Your task to perform on an android device: set default search engine in the chrome app Image 0: 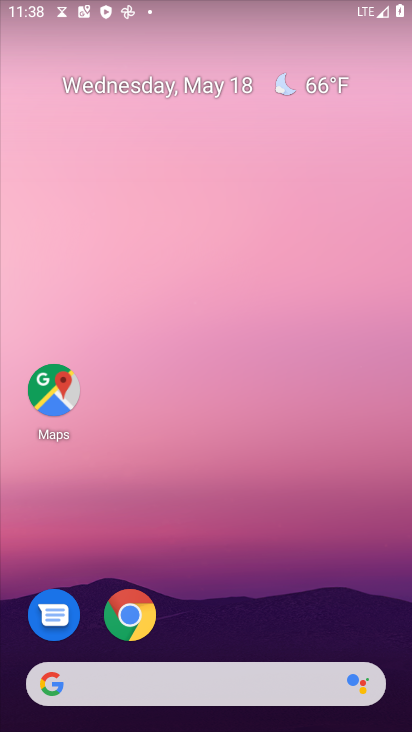
Step 0: drag from (263, 581) to (235, 30)
Your task to perform on an android device: set default search engine in the chrome app Image 1: 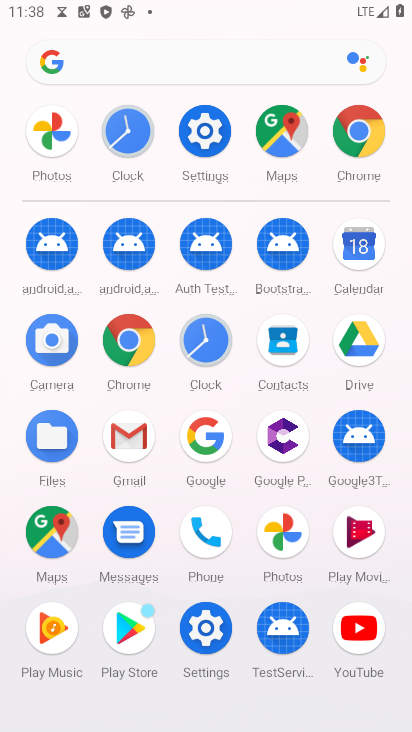
Step 1: drag from (8, 553) to (15, 235)
Your task to perform on an android device: set default search engine in the chrome app Image 2: 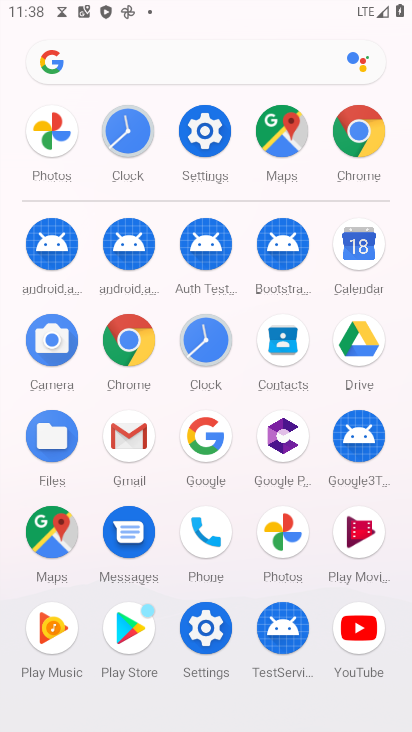
Step 2: click (125, 334)
Your task to perform on an android device: set default search engine in the chrome app Image 3: 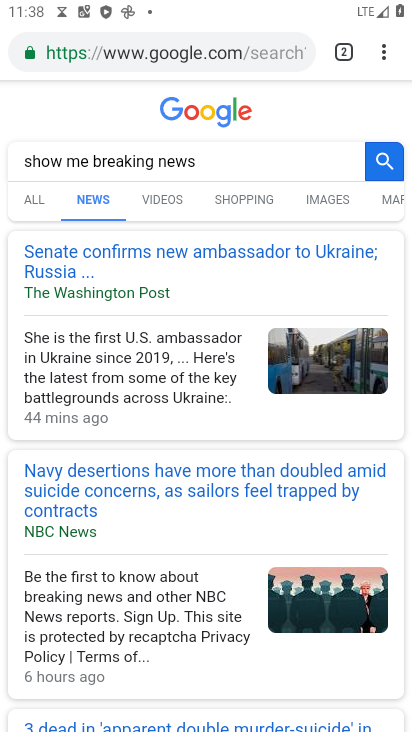
Step 3: drag from (376, 54) to (247, 572)
Your task to perform on an android device: set default search engine in the chrome app Image 4: 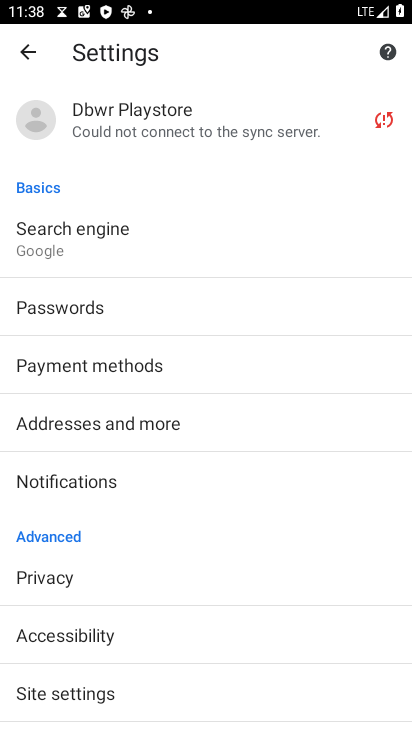
Step 4: click (152, 229)
Your task to perform on an android device: set default search engine in the chrome app Image 5: 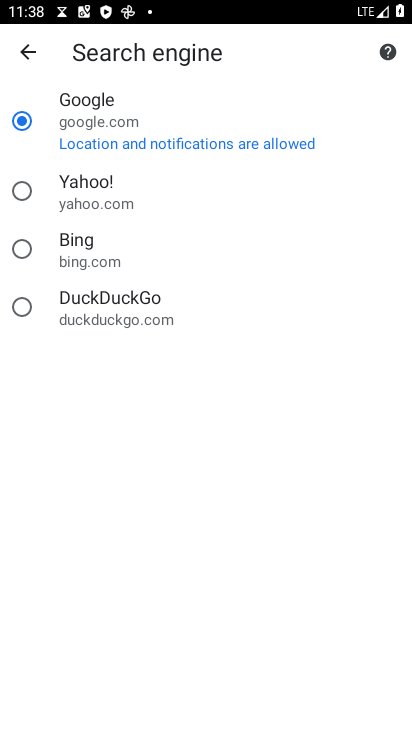
Step 5: click (93, 188)
Your task to perform on an android device: set default search engine in the chrome app Image 6: 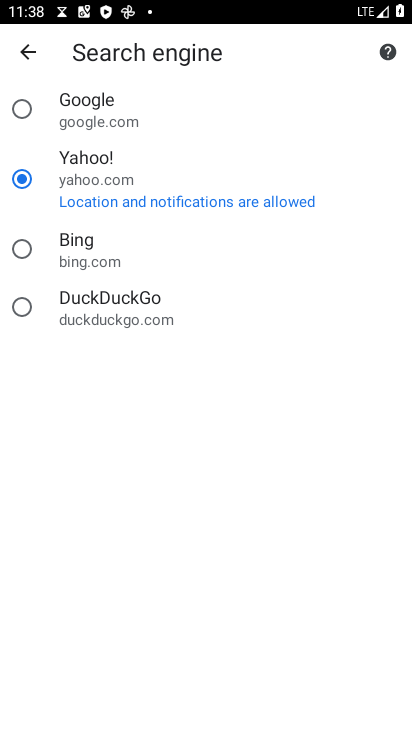
Step 6: click (24, 43)
Your task to perform on an android device: set default search engine in the chrome app Image 7: 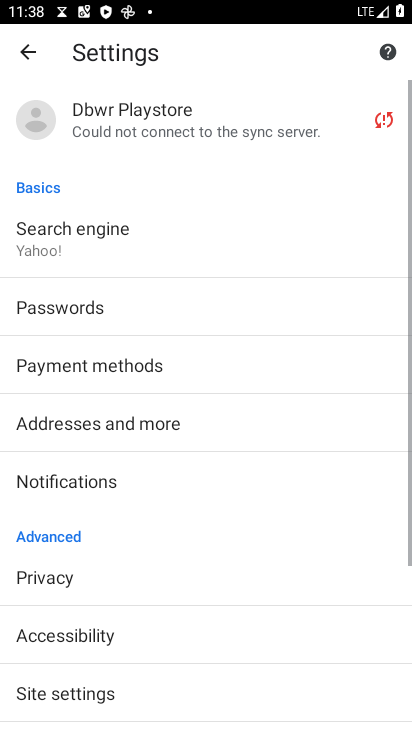
Step 7: task complete